Your task to perform on an android device: Clear the cart on ebay.com. Search for dell xps on ebay.com, select the first entry, add it to the cart, then select checkout. Image 0: 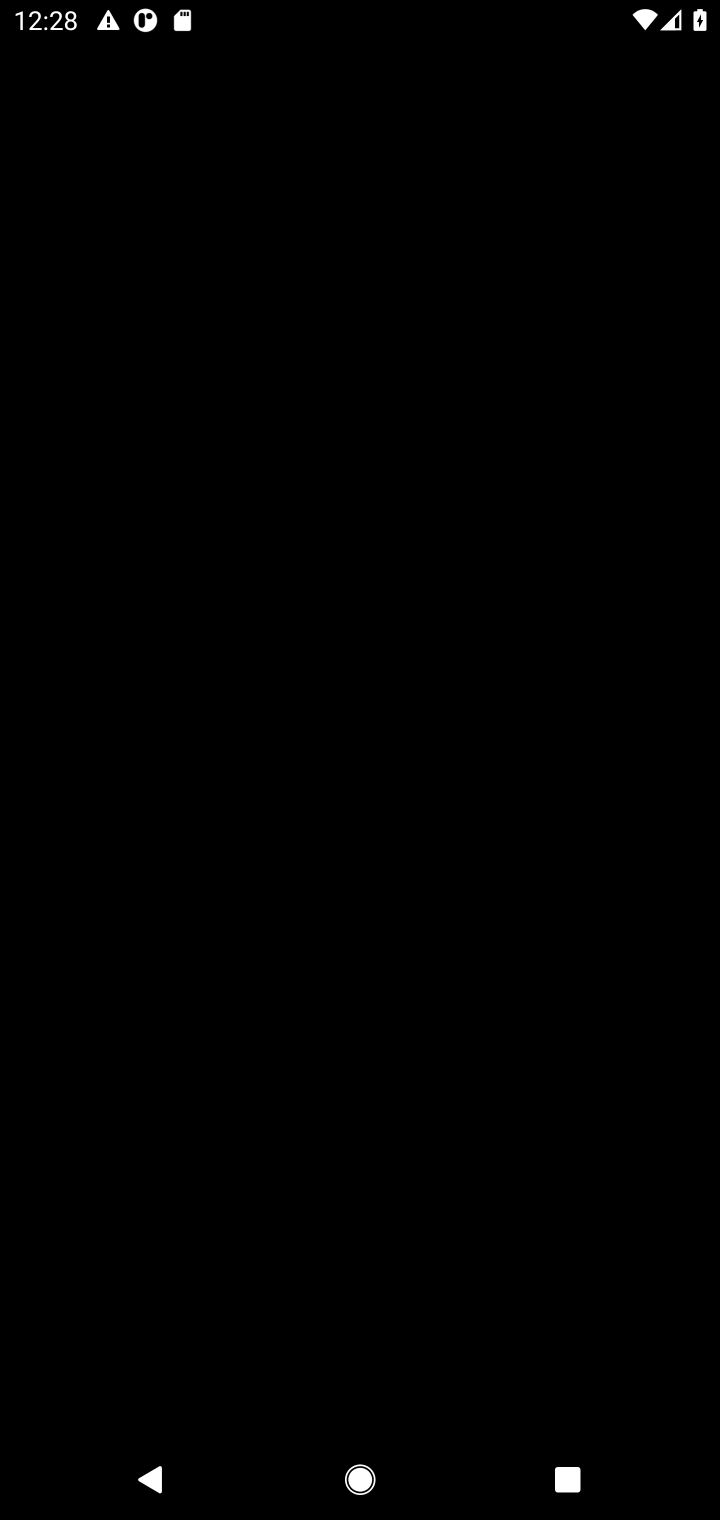
Step 0: press home button
Your task to perform on an android device: Clear the cart on ebay.com. Search for dell xps on ebay.com, select the first entry, add it to the cart, then select checkout. Image 1: 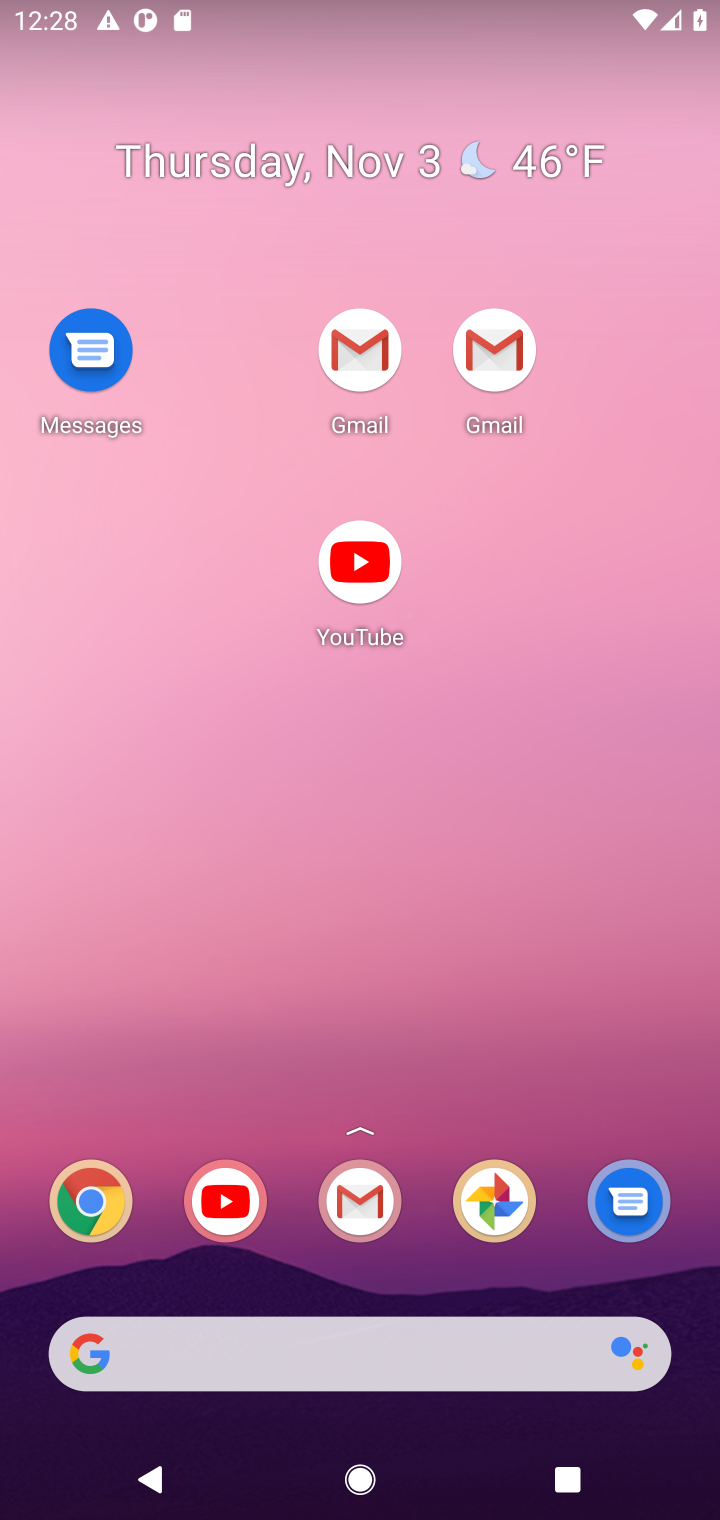
Step 1: drag from (412, 1120) to (419, 519)
Your task to perform on an android device: Clear the cart on ebay.com. Search for dell xps on ebay.com, select the first entry, add it to the cart, then select checkout. Image 2: 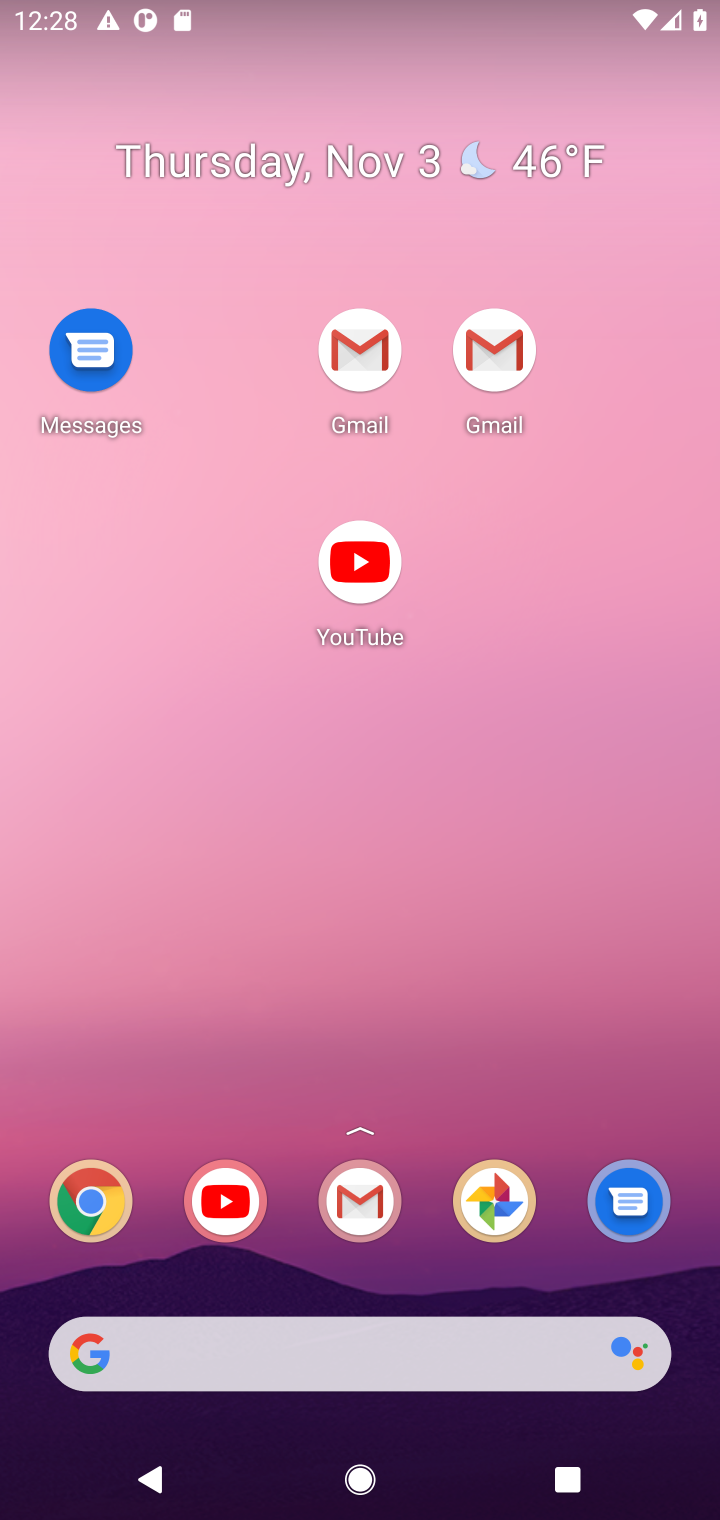
Step 2: drag from (448, 986) to (547, 455)
Your task to perform on an android device: Clear the cart on ebay.com. Search for dell xps on ebay.com, select the first entry, add it to the cart, then select checkout. Image 3: 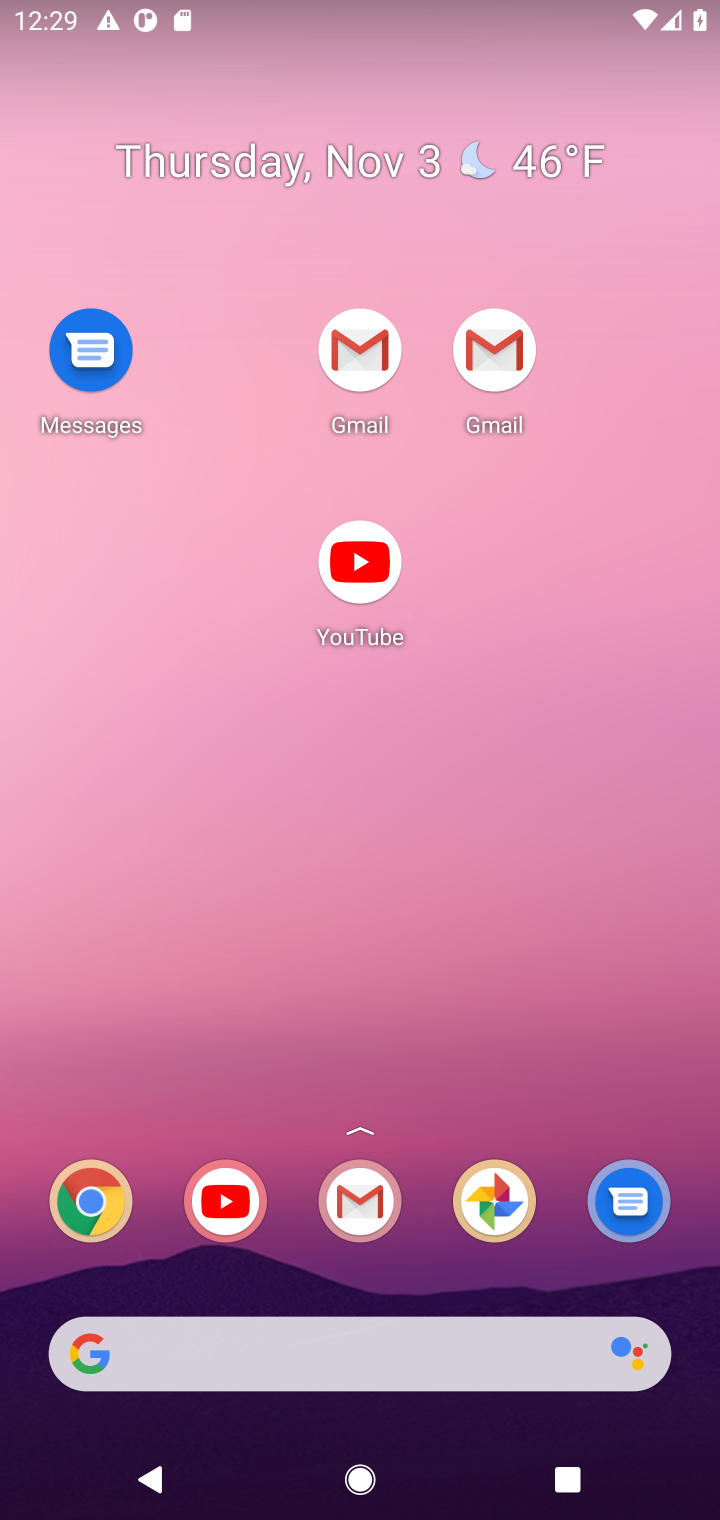
Step 3: drag from (290, 1184) to (173, 294)
Your task to perform on an android device: Clear the cart on ebay.com. Search for dell xps on ebay.com, select the first entry, add it to the cart, then select checkout. Image 4: 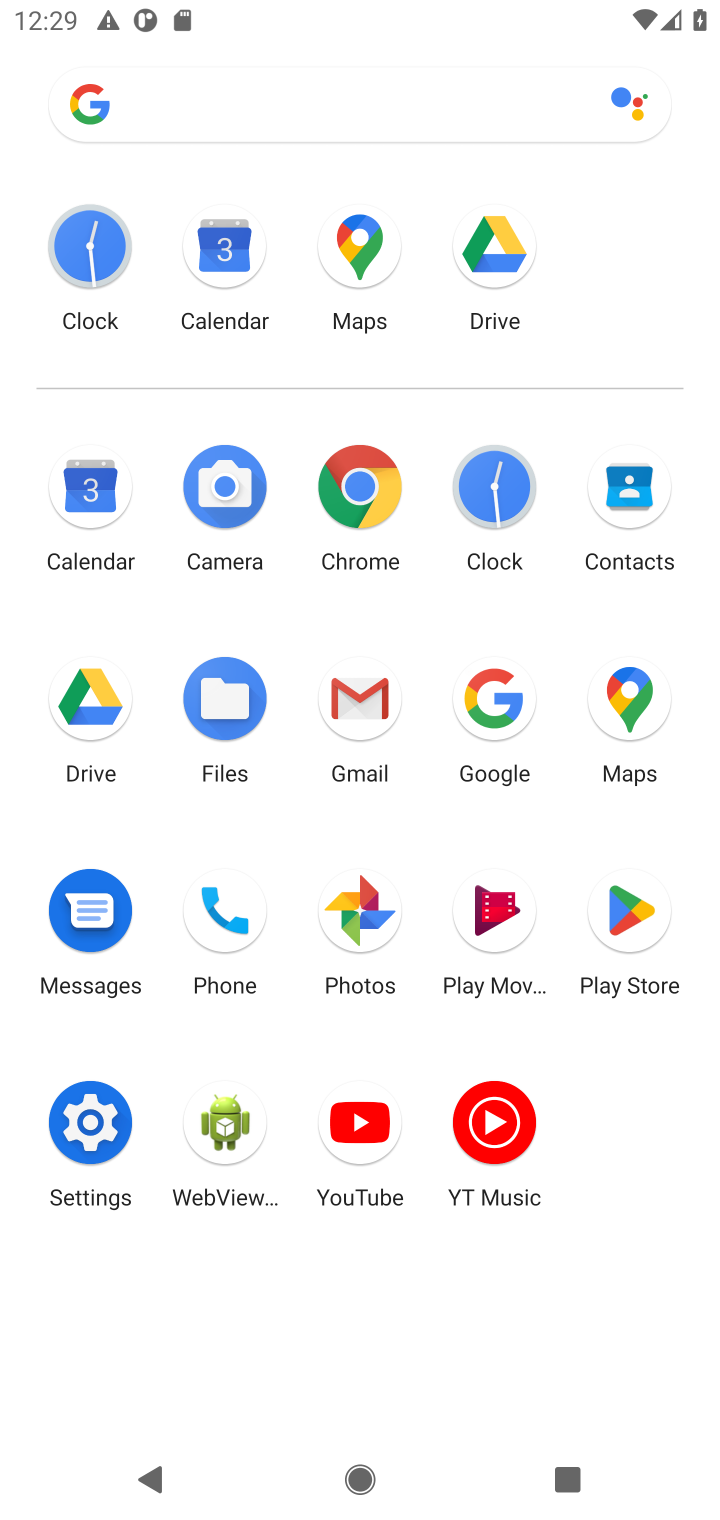
Step 4: click (371, 485)
Your task to perform on an android device: Clear the cart on ebay.com. Search for dell xps on ebay.com, select the first entry, add it to the cart, then select checkout. Image 5: 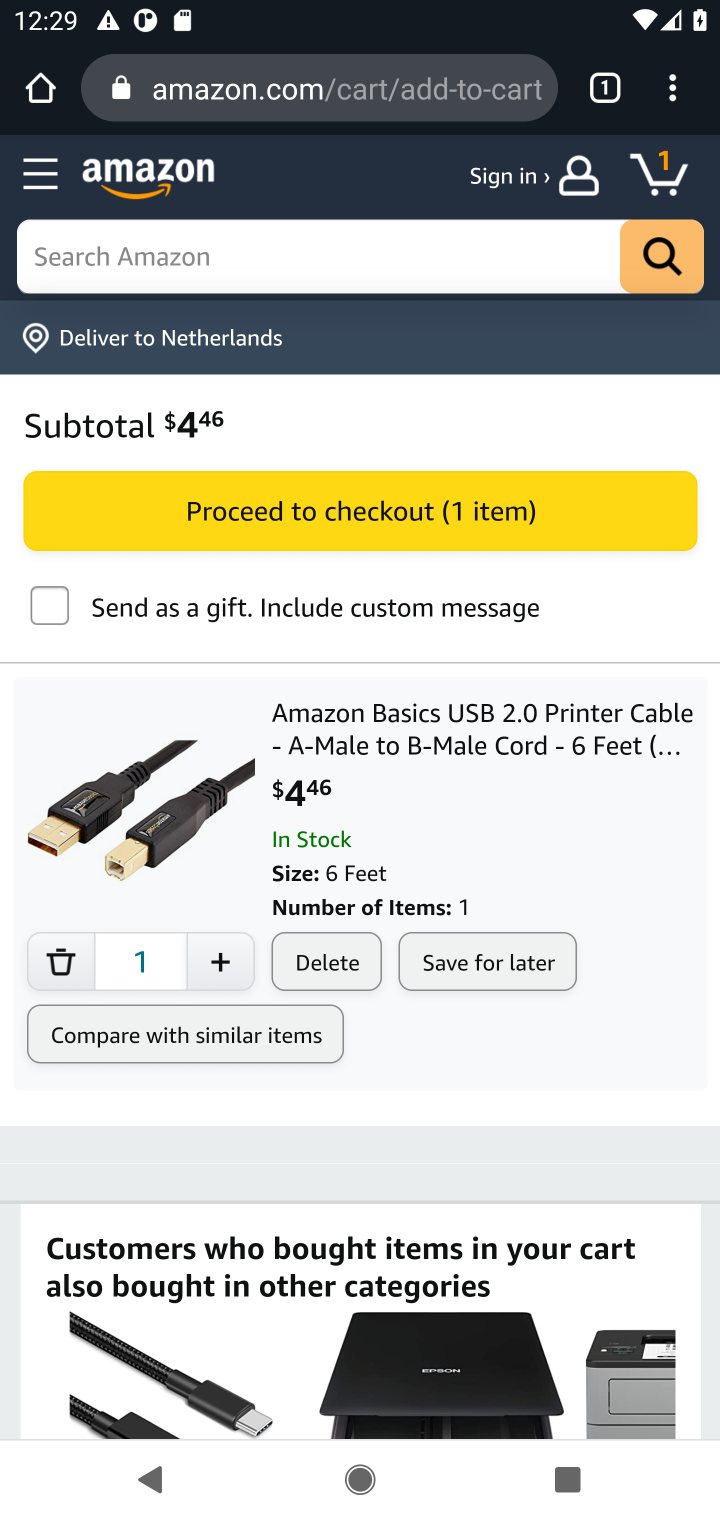
Step 5: click (385, 99)
Your task to perform on an android device: Clear the cart on ebay.com. Search for dell xps on ebay.com, select the first entry, add it to the cart, then select checkout. Image 6: 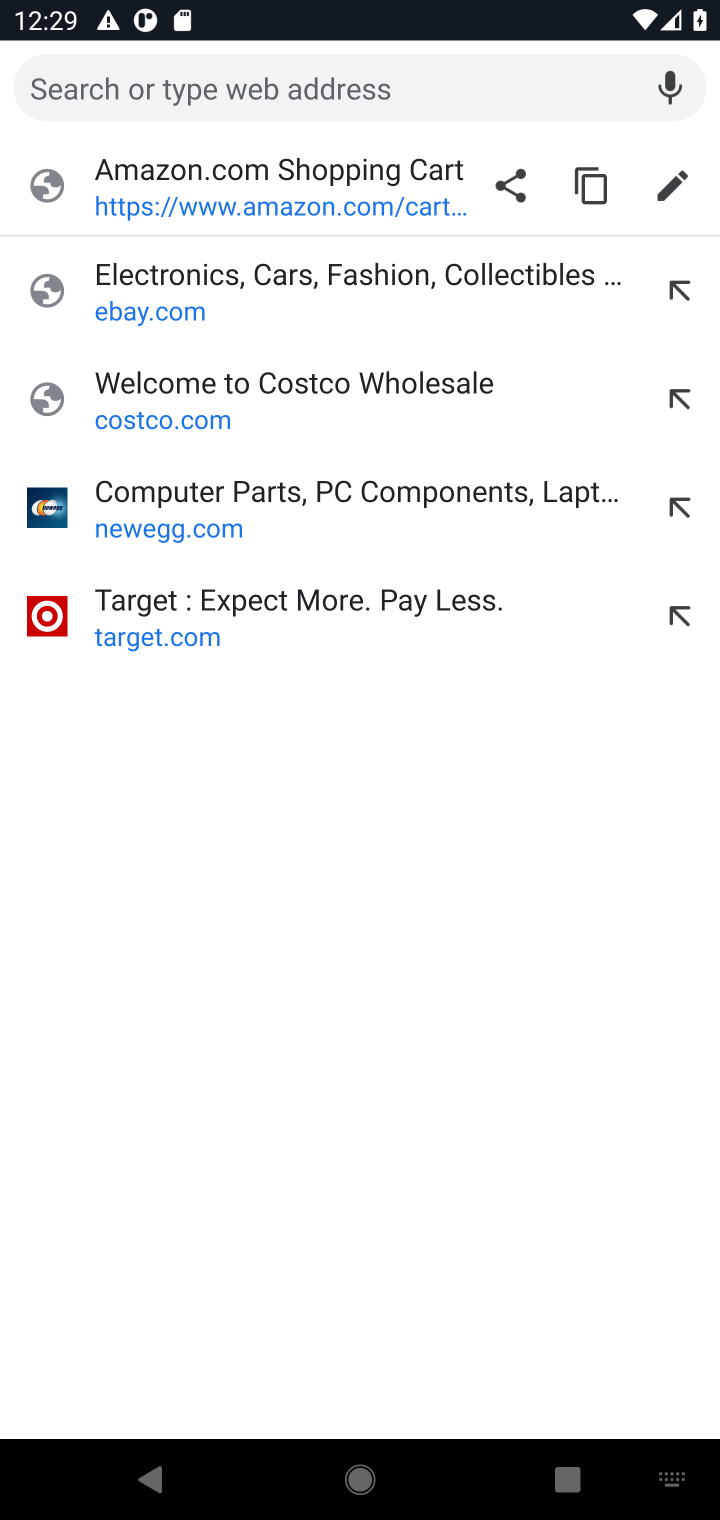
Step 6: type "ebay.com"
Your task to perform on an android device: Clear the cart on ebay.com. Search for dell xps on ebay.com, select the first entry, add it to the cart, then select checkout. Image 7: 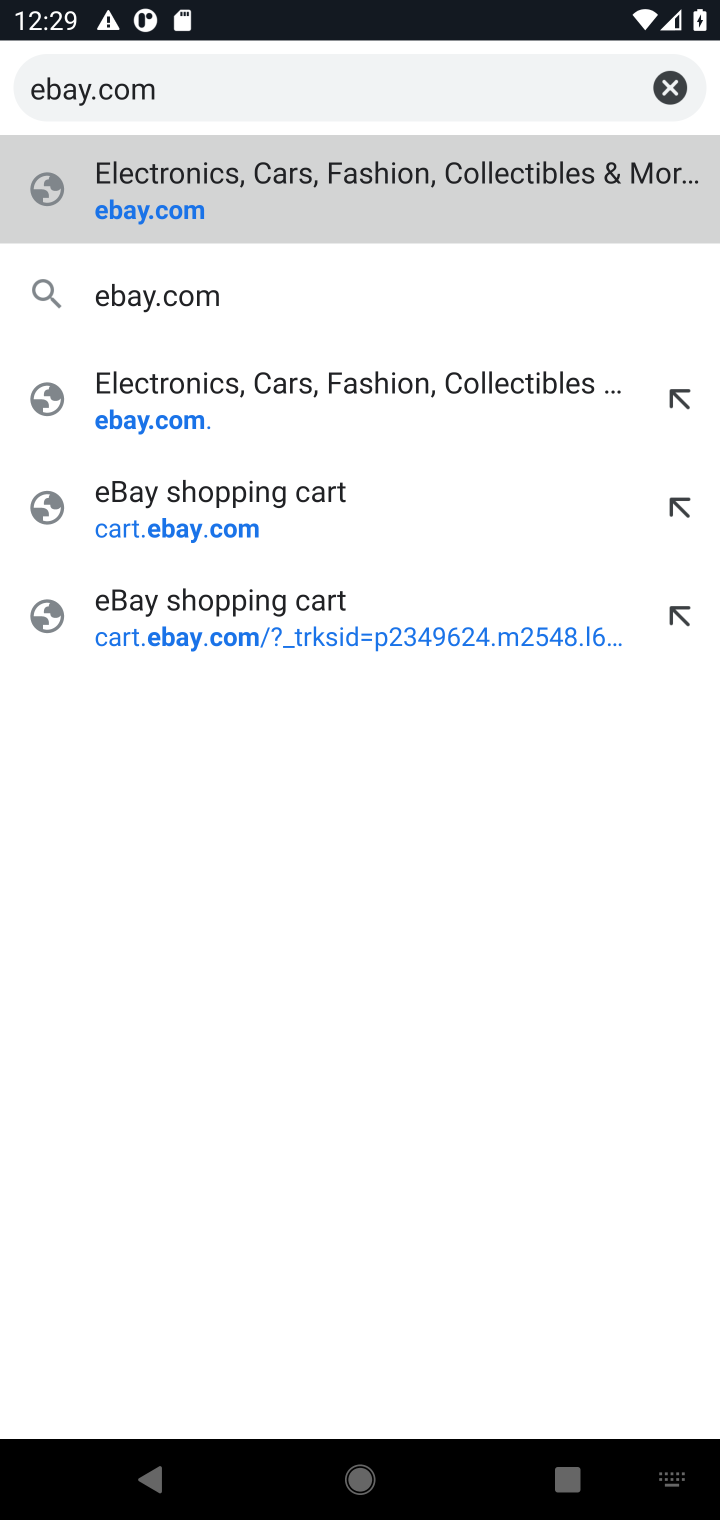
Step 7: press enter
Your task to perform on an android device: Clear the cart on ebay.com. Search for dell xps on ebay.com, select the first entry, add it to the cart, then select checkout. Image 8: 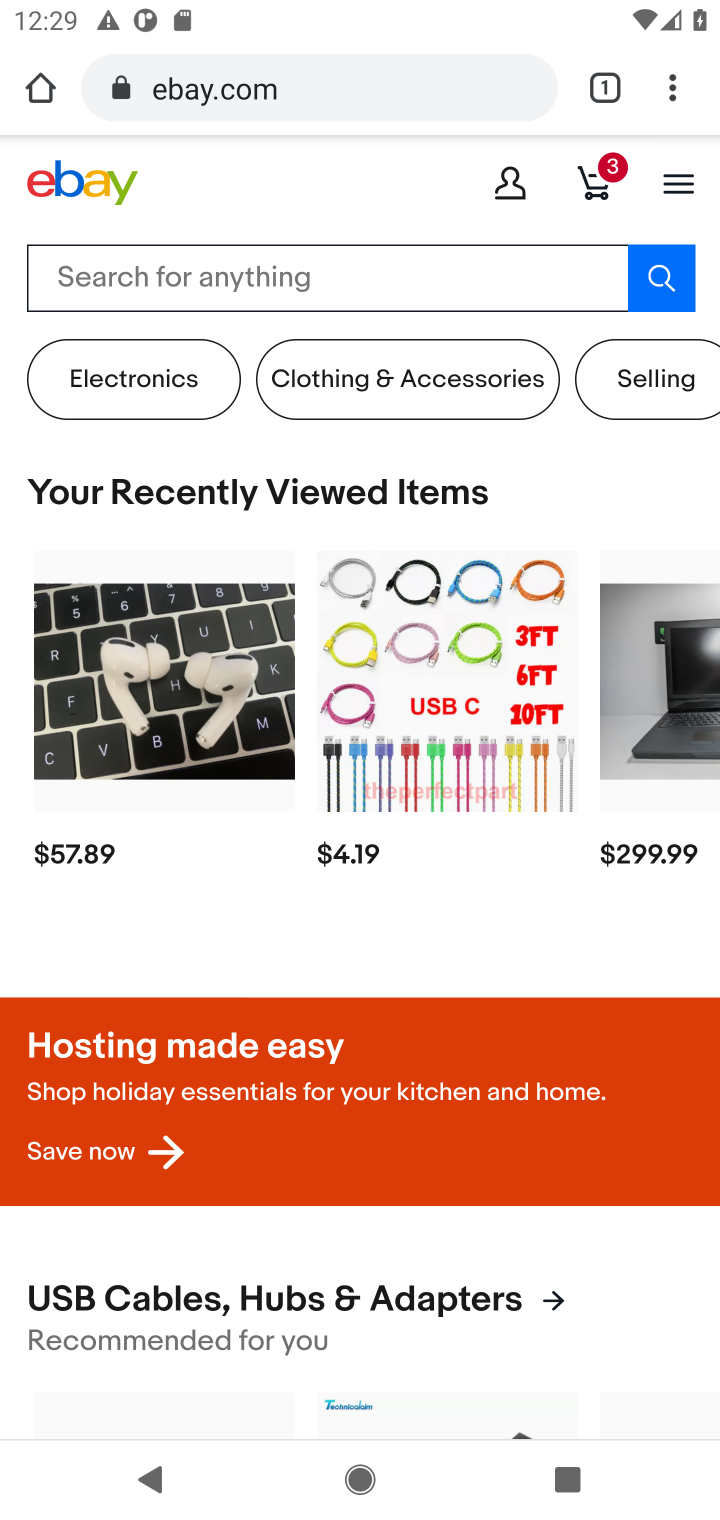
Step 8: click (605, 172)
Your task to perform on an android device: Clear the cart on ebay.com. Search for dell xps on ebay.com, select the first entry, add it to the cart, then select checkout. Image 9: 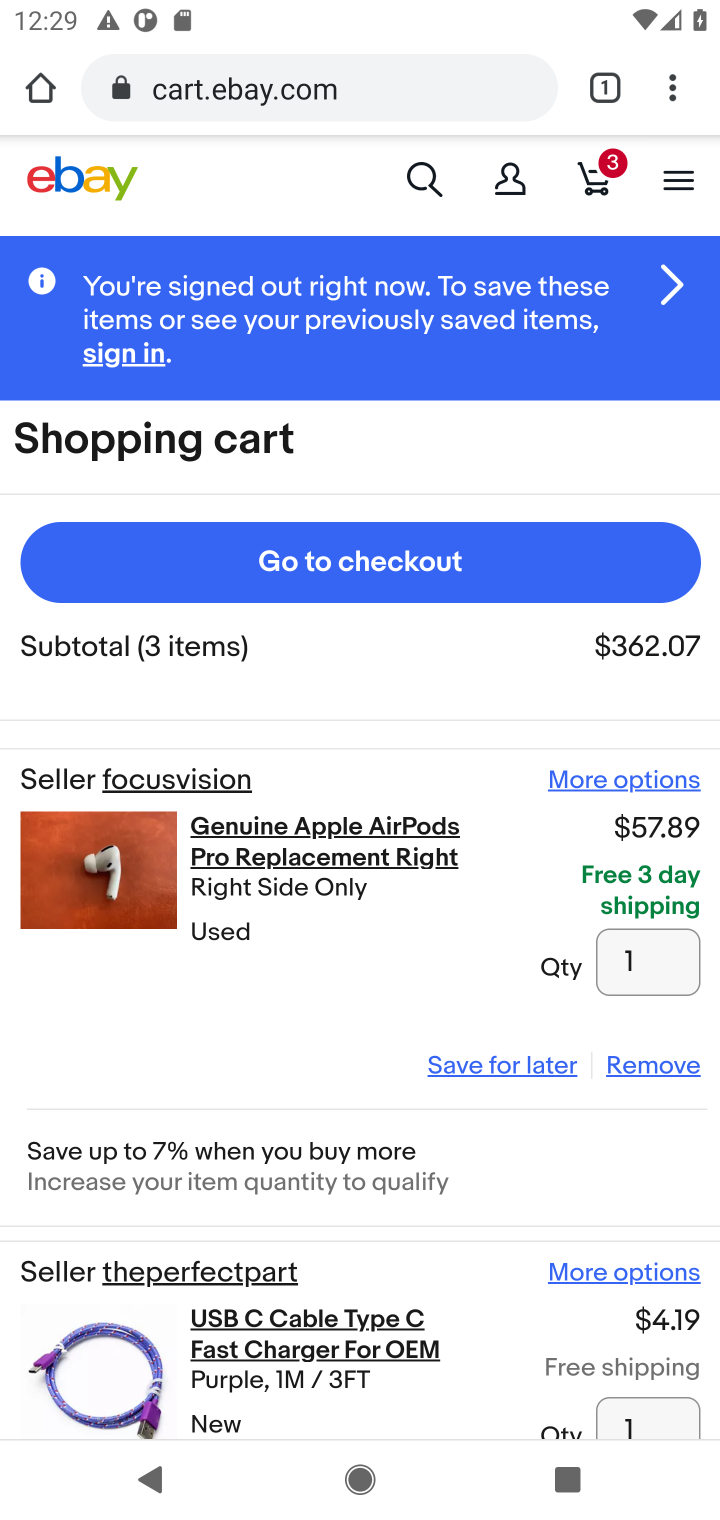
Step 9: click (660, 1062)
Your task to perform on an android device: Clear the cart on ebay.com. Search for dell xps on ebay.com, select the first entry, add it to the cart, then select checkout. Image 10: 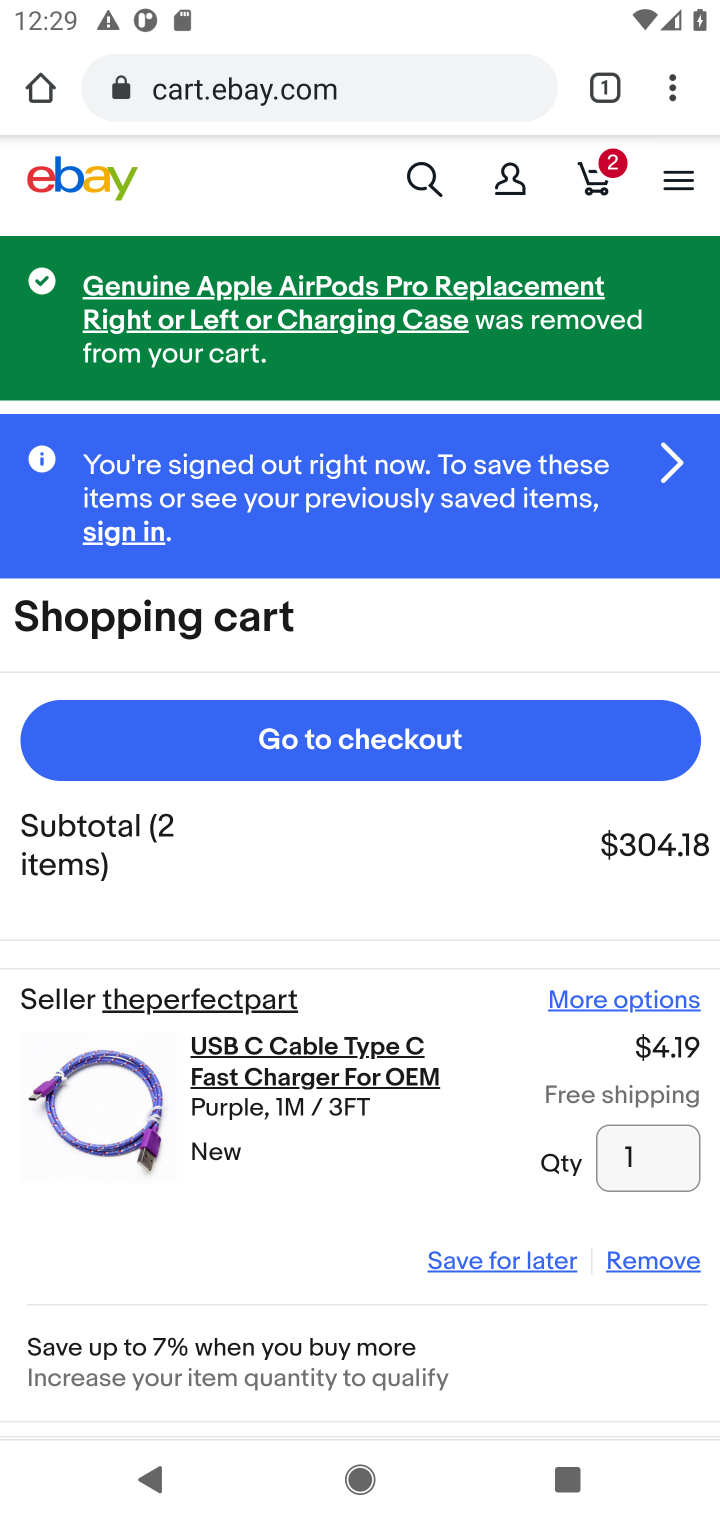
Step 10: click (682, 1267)
Your task to perform on an android device: Clear the cart on ebay.com. Search for dell xps on ebay.com, select the first entry, add it to the cart, then select checkout. Image 11: 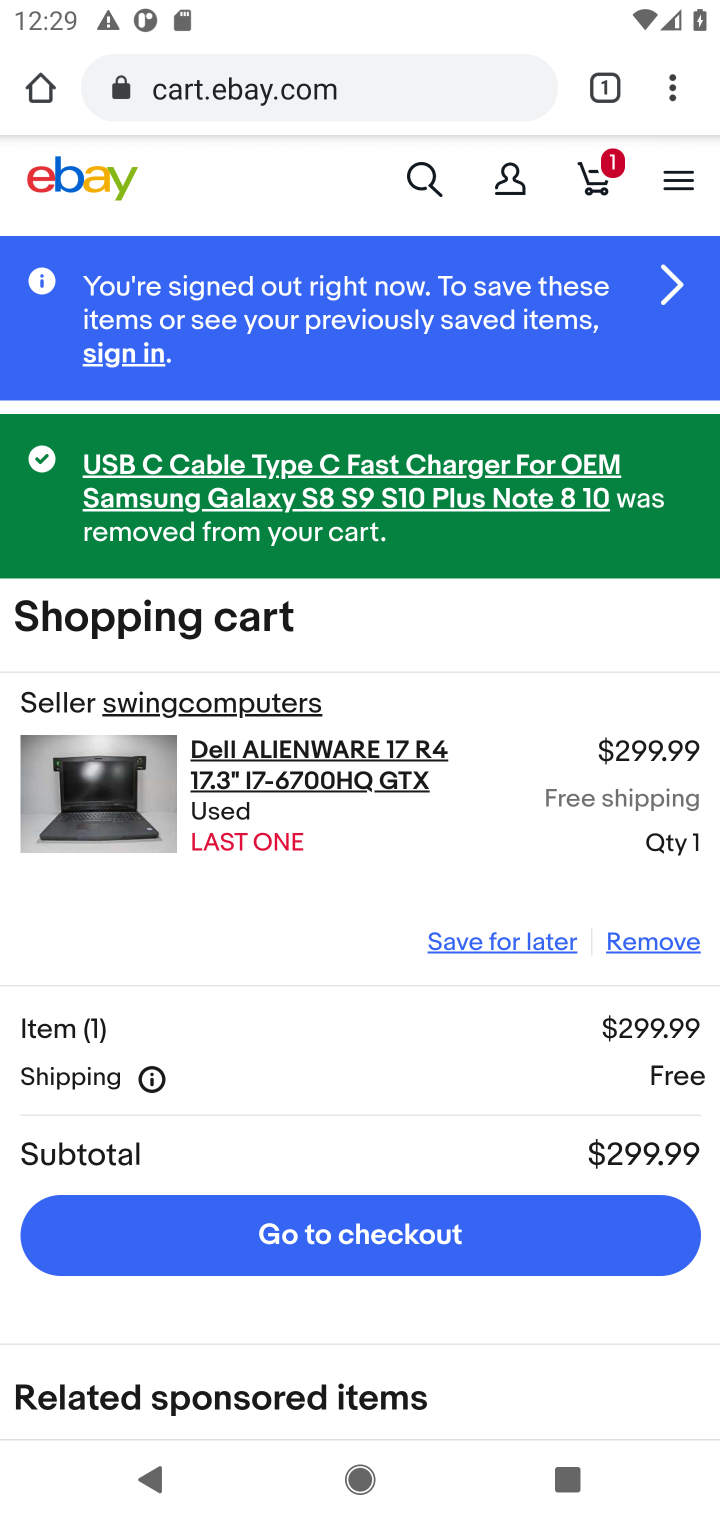
Step 11: drag from (509, 1391) to (402, 773)
Your task to perform on an android device: Clear the cart on ebay.com. Search for dell xps on ebay.com, select the first entry, add it to the cart, then select checkout. Image 12: 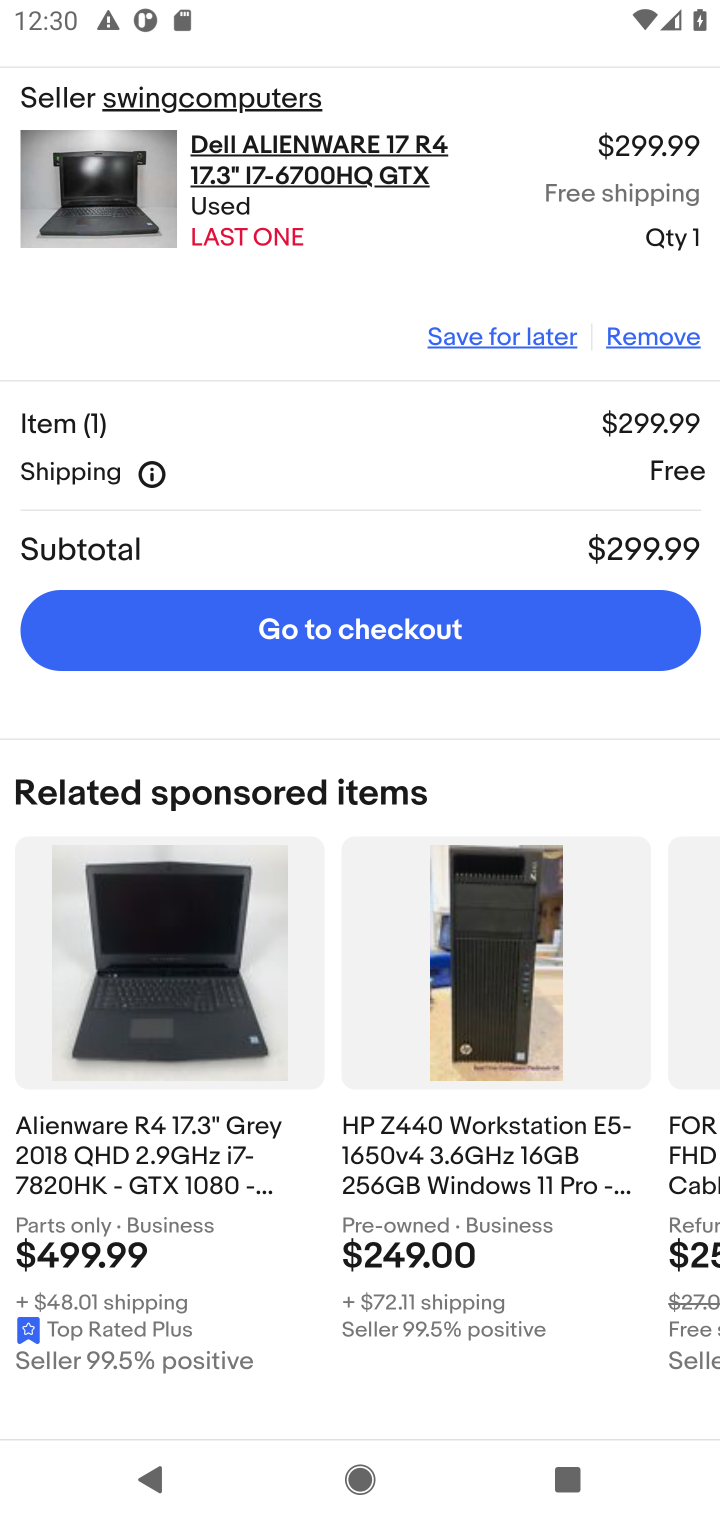
Step 12: drag from (377, 345) to (574, 1104)
Your task to perform on an android device: Clear the cart on ebay.com. Search for dell xps on ebay.com, select the first entry, add it to the cart, then select checkout. Image 13: 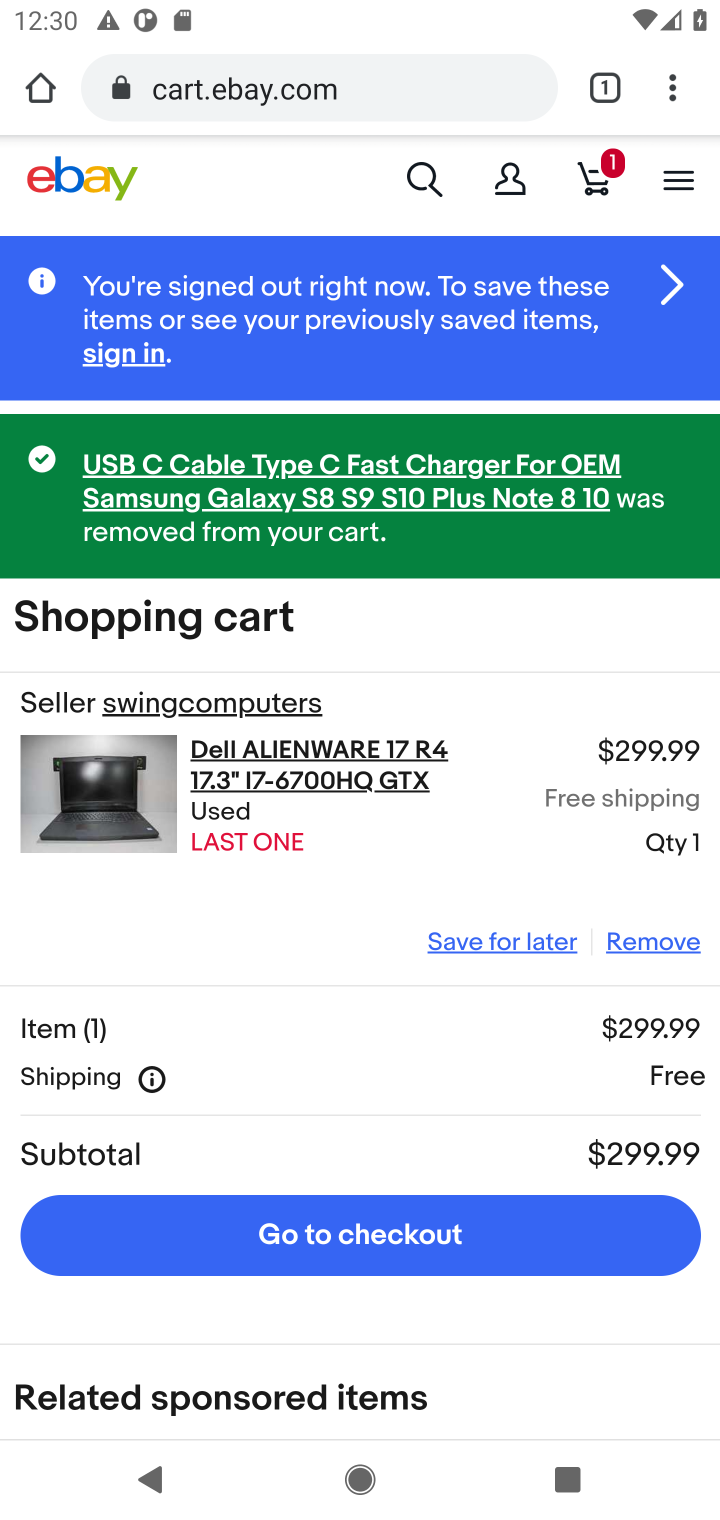
Step 13: click (685, 944)
Your task to perform on an android device: Clear the cart on ebay.com. Search for dell xps on ebay.com, select the first entry, add it to the cart, then select checkout. Image 14: 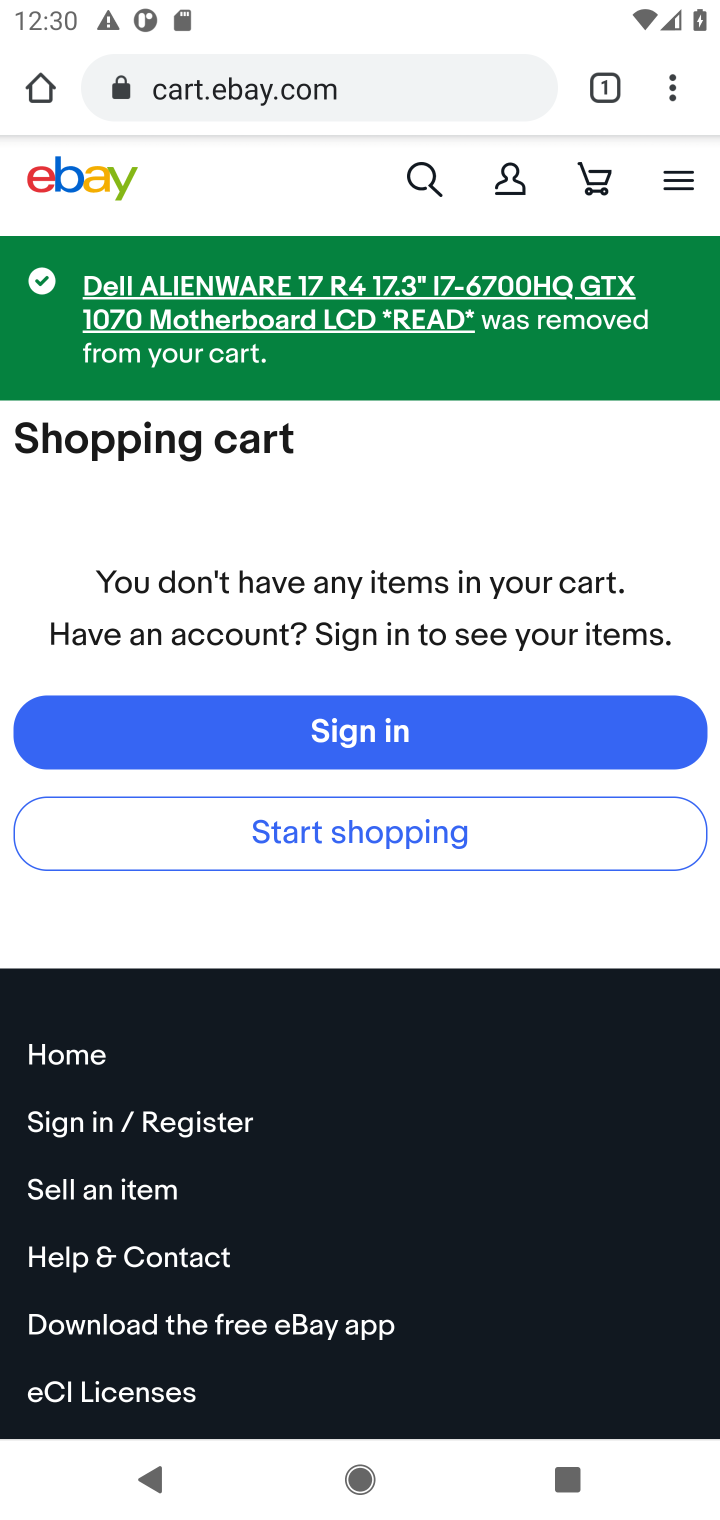
Step 14: click (430, 183)
Your task to perform on an android device: Clear the cart on ebay.com. Search for dell xps on ebay.com, select the first entry, add it to the cart, then select checkout. Image 15: 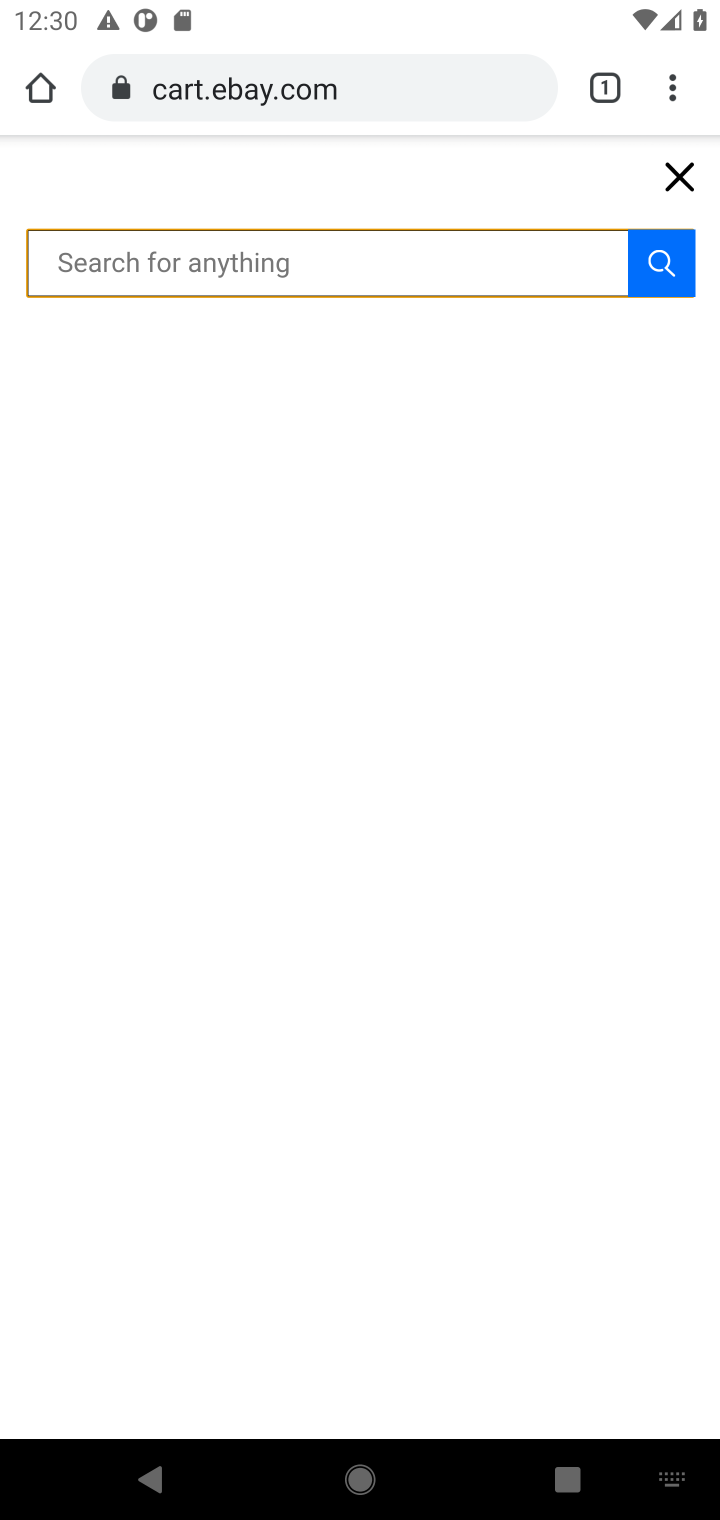
Step 15: type "dell xps"
Your task to perform on an android device: Clear the cart on ebay.com. Search for dell xps on ebay.com, select the first entry, add it to the cart, then select checkout. Image 16: 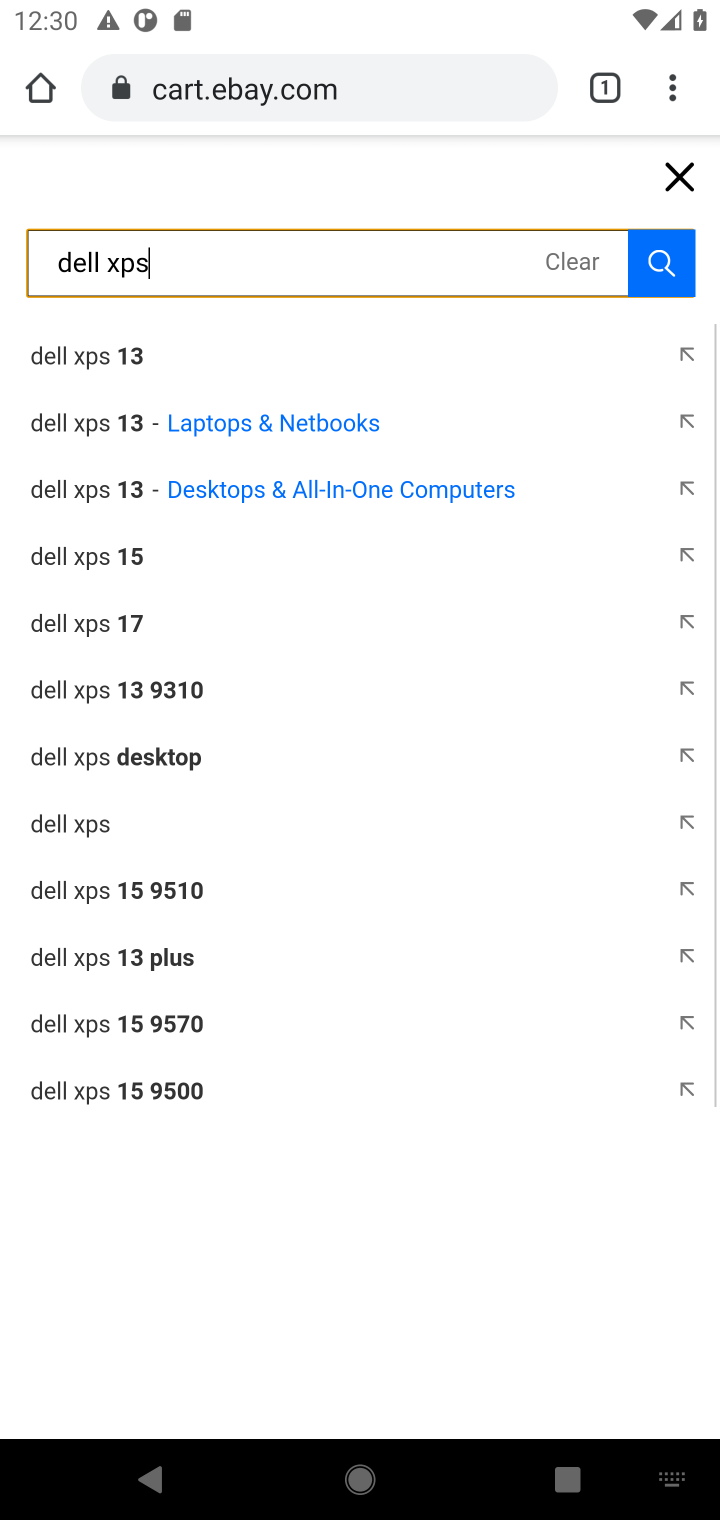
Step 16: press enter
Your task to perform on an android device: Clear the cart on ebay.com. Search for dell xps on ebay.com, select the first entry, add it to the cart, then select checkout. Image 17: 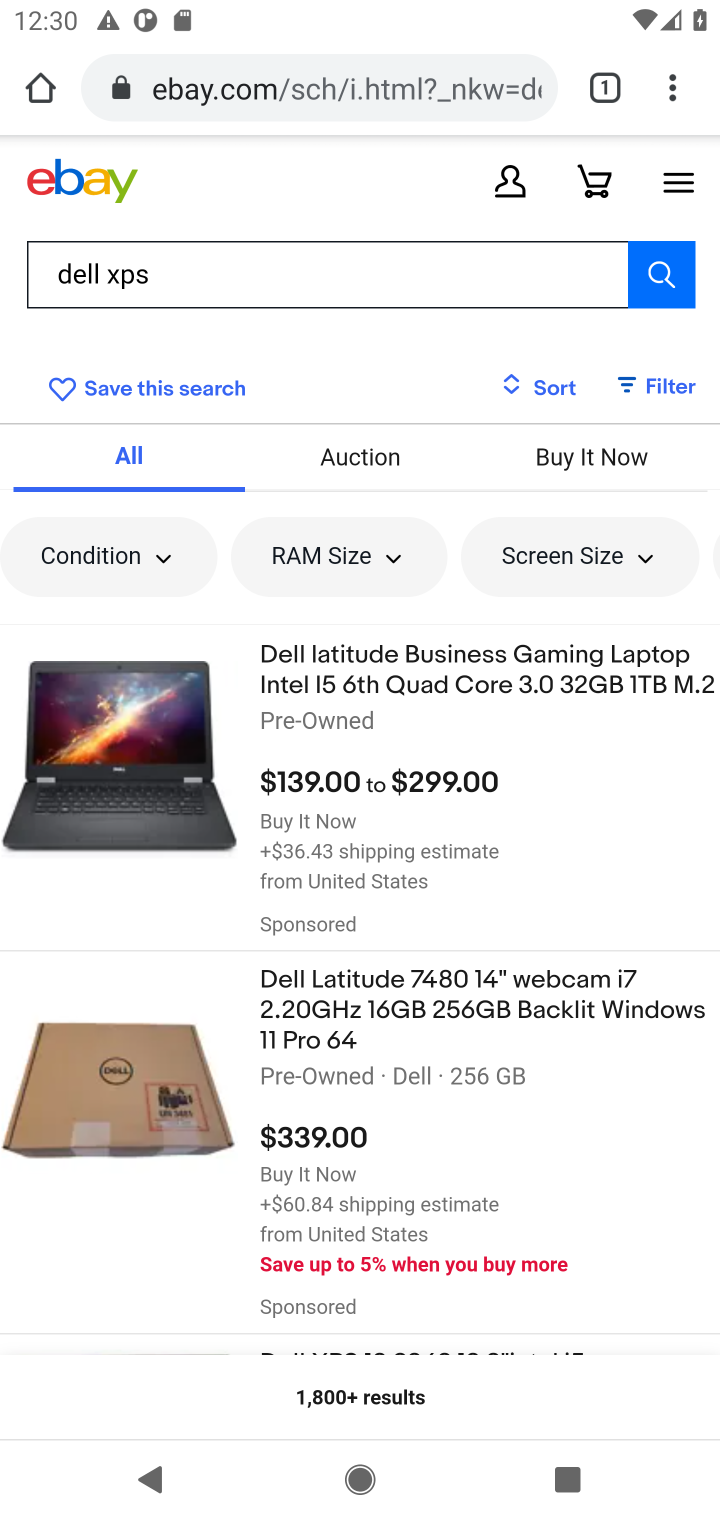
Step 17: drag from (581, 1209) to (518, 509)
Your task to perform on an android device: Clear the cart on ebay.com. Search for dell xps on ebay.com, select the first entry, add it to the cart, then select checkout. Image 18: 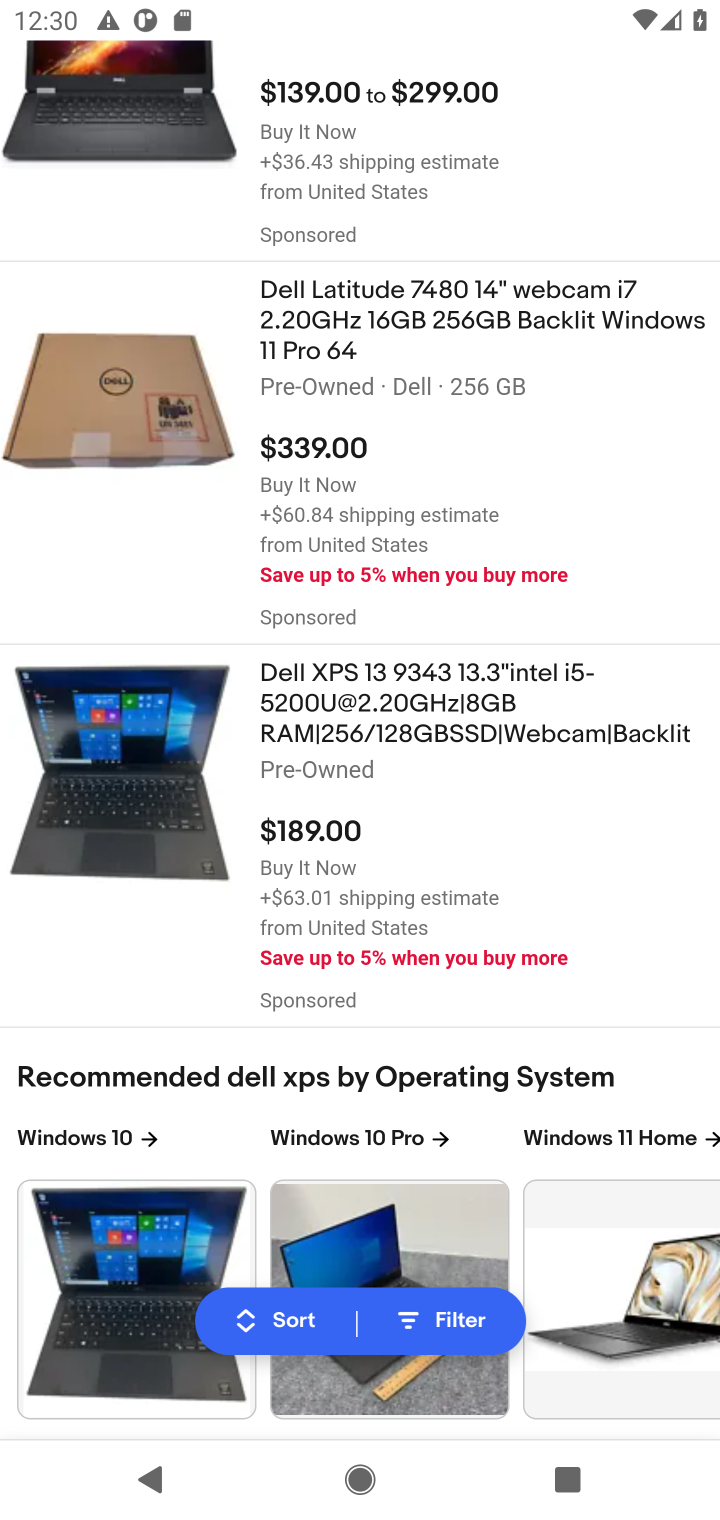
Step 18: click (318, 708)
Your task to perform on an android device: Clear the cart on ebay.com. Search for dell xps on ebay.com, select the first entry, add it to the cart, then select checkout. Image 19: 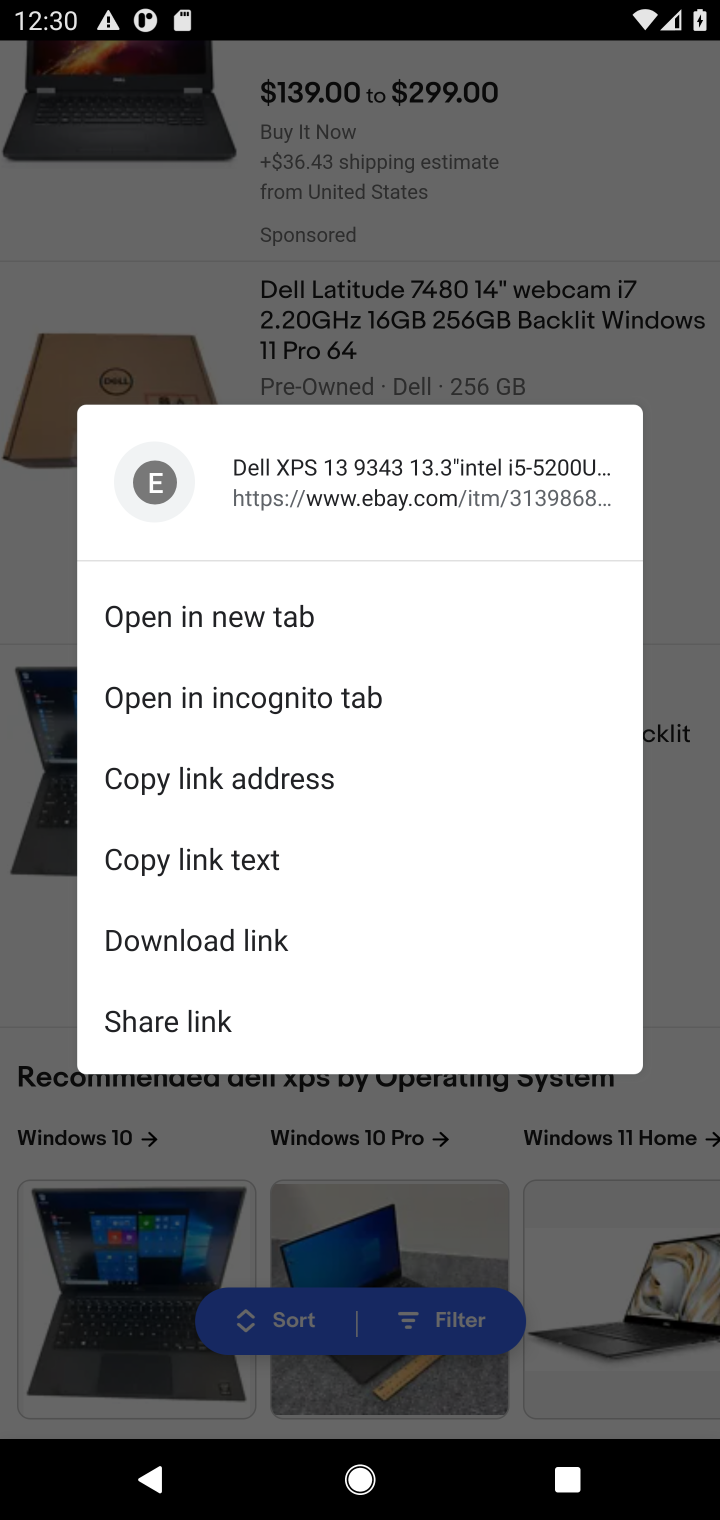
Step 19: click (44, 746)
Your task to perform on an android device: Clear the cart on ebay.com. Search for dell xps on ebay.com, select the first entry, add it to the cart, then select checkout. Image 20: 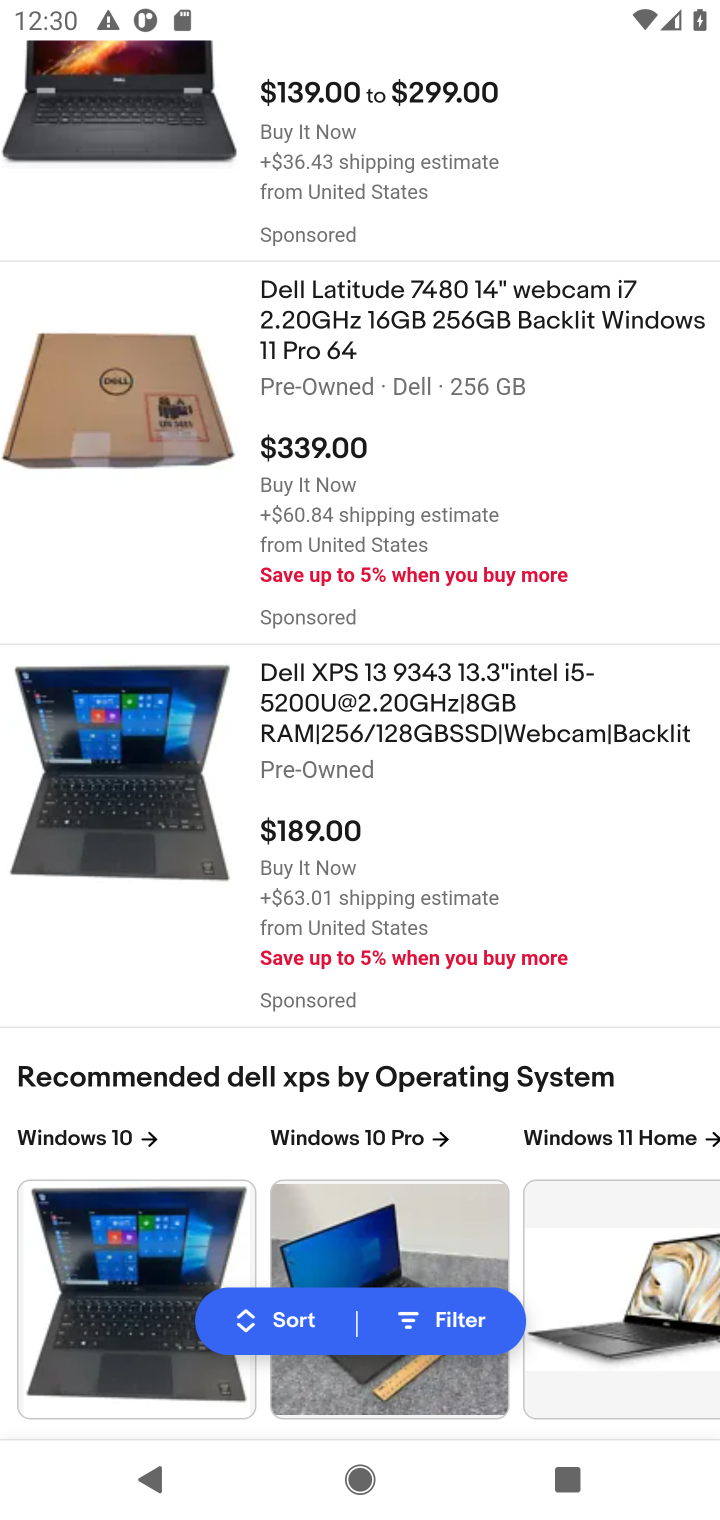
Step 20: click (398, 725)
Your task to perform on an android device: Clear the cart on ebay.com. Search for dell xps on ebay.com, select the first entry, add it to the cart, then select checkout. Image 21: 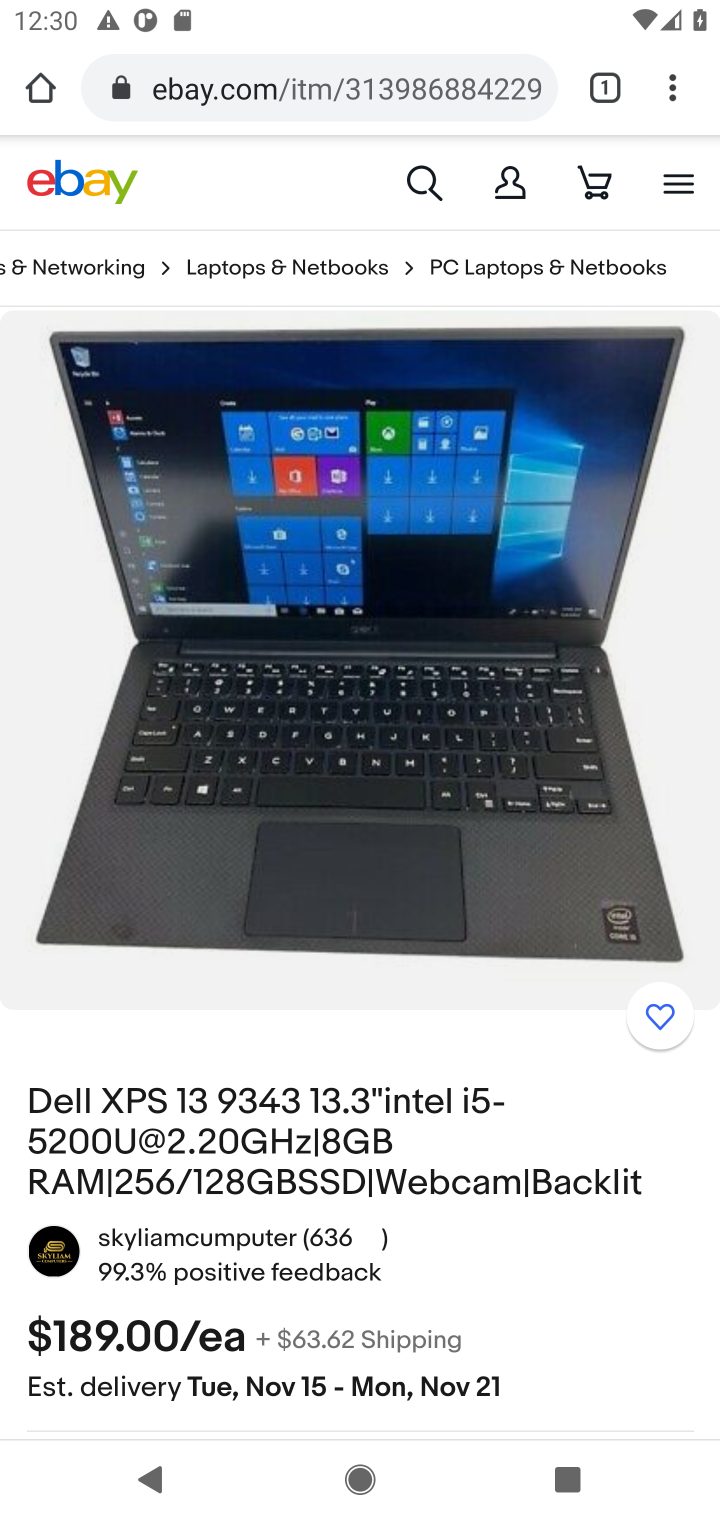
Step 21: drag from (467, 1161) to (422, 376)
Your task to perform on an android device: Clear the cart on ebay.com. Search for dell xps on ebay.com, select the first entry, add it to the cart, then select checkout. Image 22: 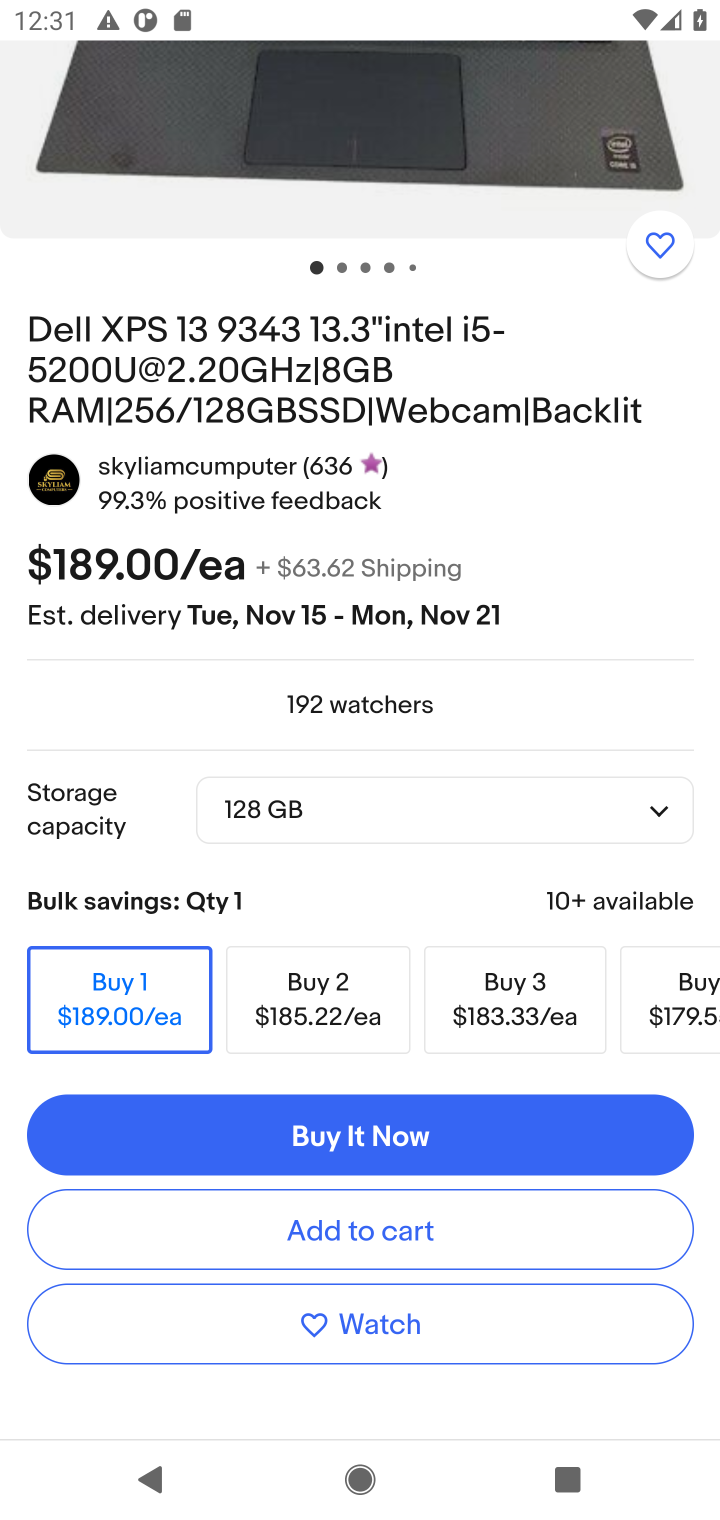
Step 22: click (509, 1225)
Your task to perform on an android device: Clear the cart on ebay.com. Search for dell xps on ebay.com, select the first entry, add it to the cart, then select checkout. Image 23: 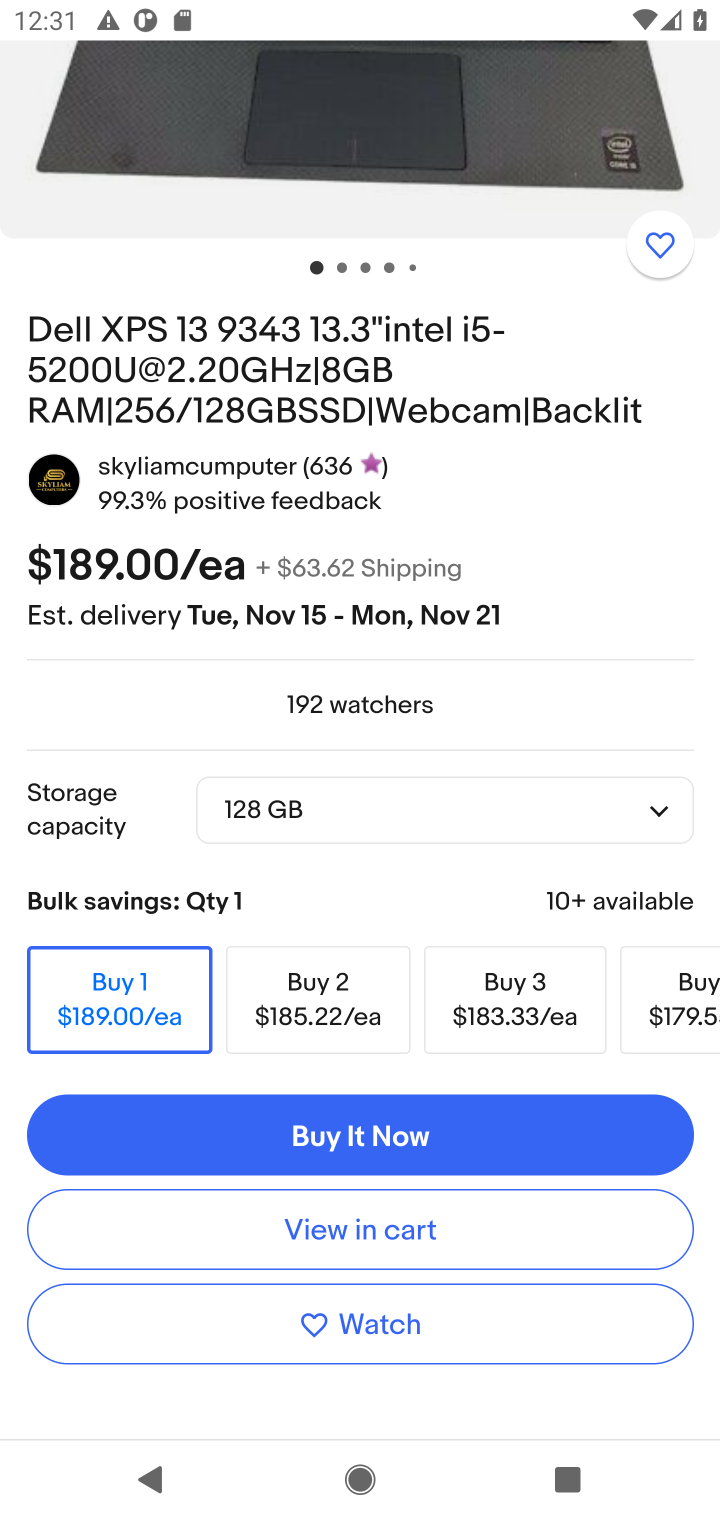
Step 23: click (440, 1230)
Your task to perform on an android device: Clear the cart on ebay.com. Search for dell xps on ebay.com, select the first entry, add it to the cart, then select checkout. Image 24: 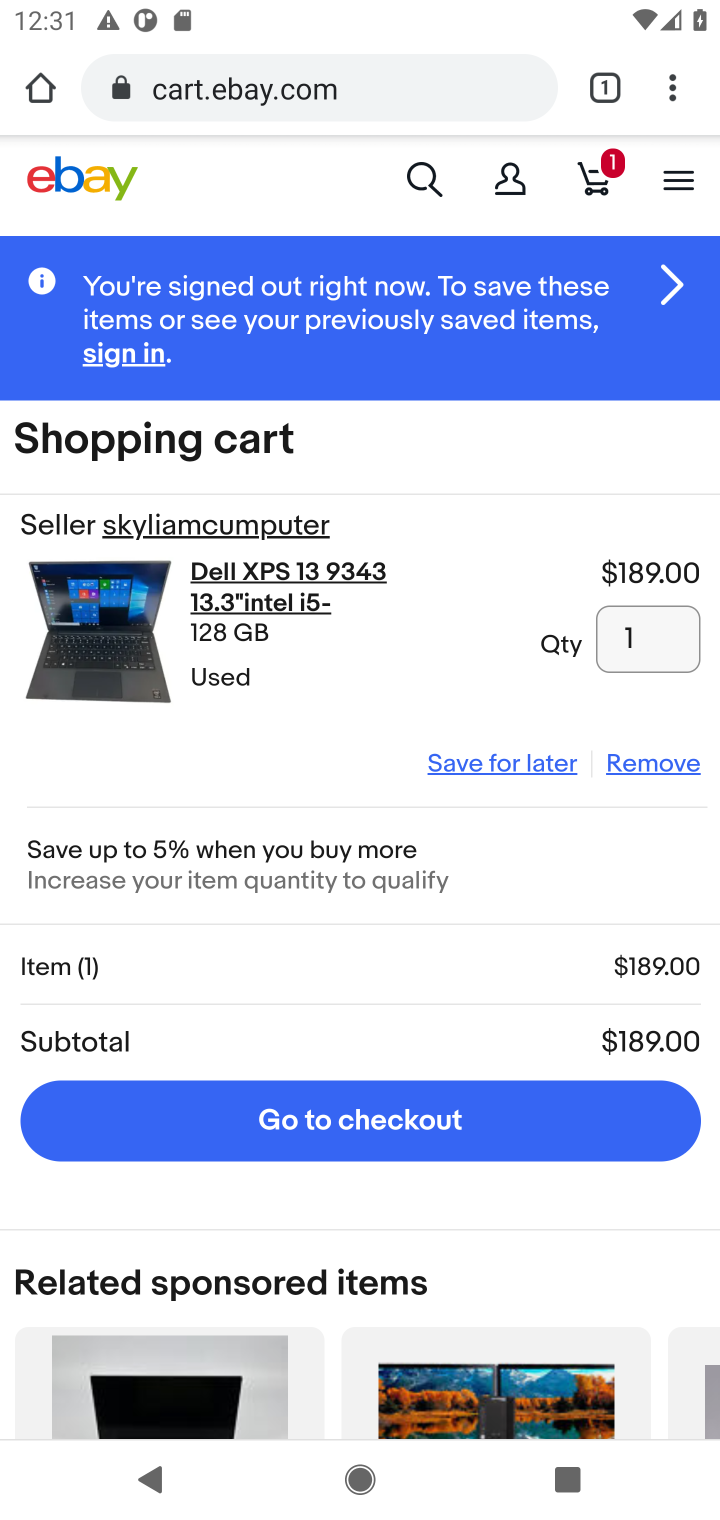
Step 24: click (518, 1110)
Your task to perform on an android device: Clear the cart on ebay.com. Search for dell xps on ebay.com, select the first entry, add it to the cart, then select checkout. Image 25: 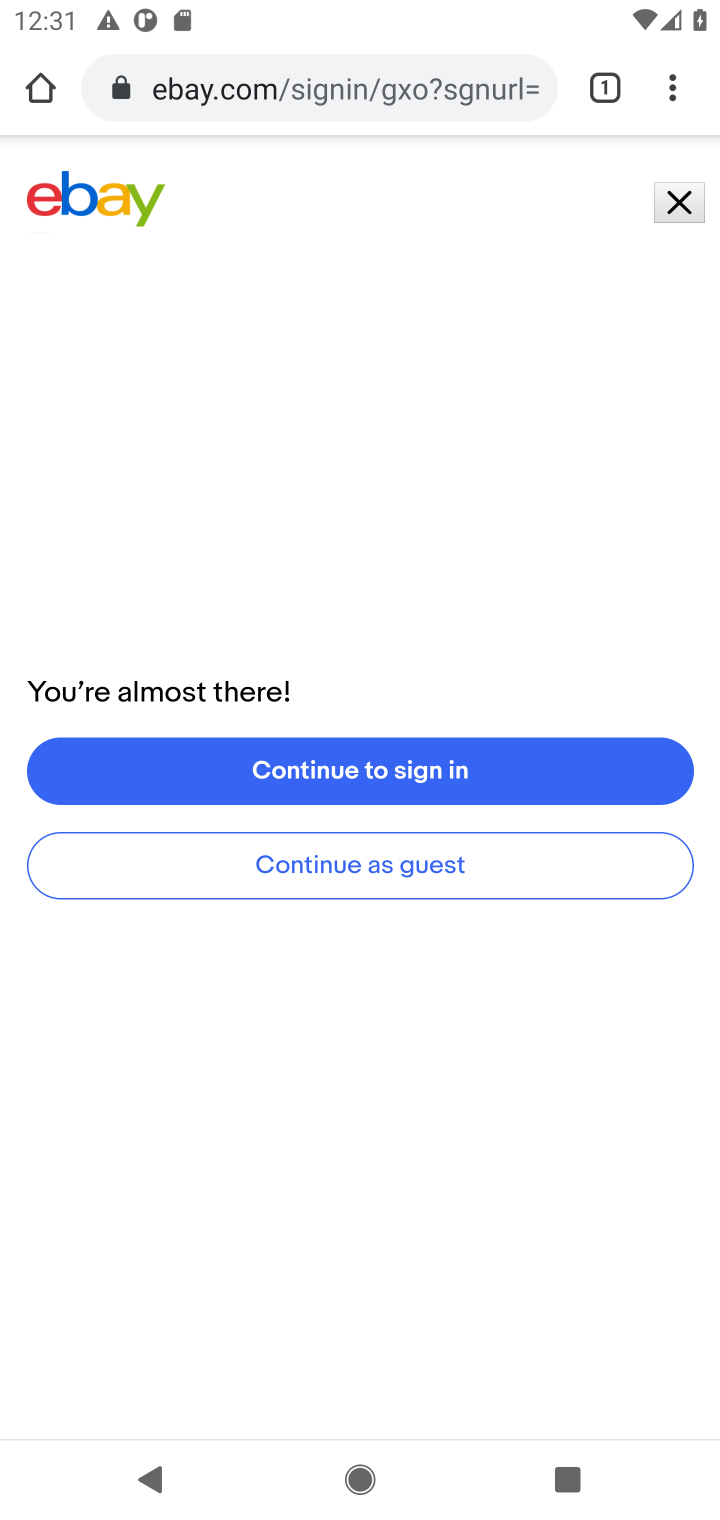
Step 25: task complete